Your task to perform on an android device: turn off notifications in google photos Image 0: 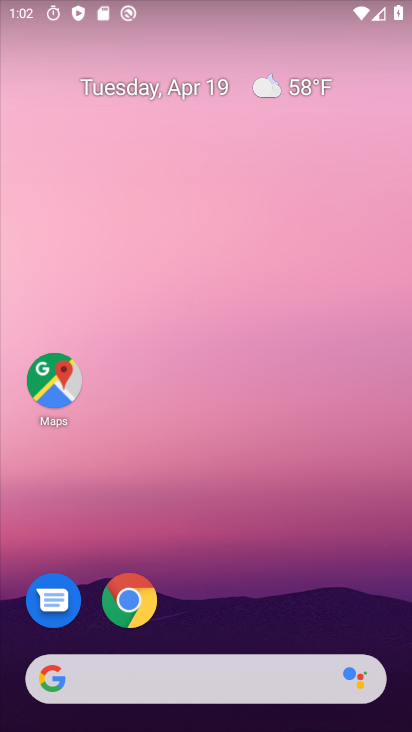
Step 0: drag from (282, 691) to (281, 237)
Your task to perform on an android device: turn off notifications in google photos Image 1: 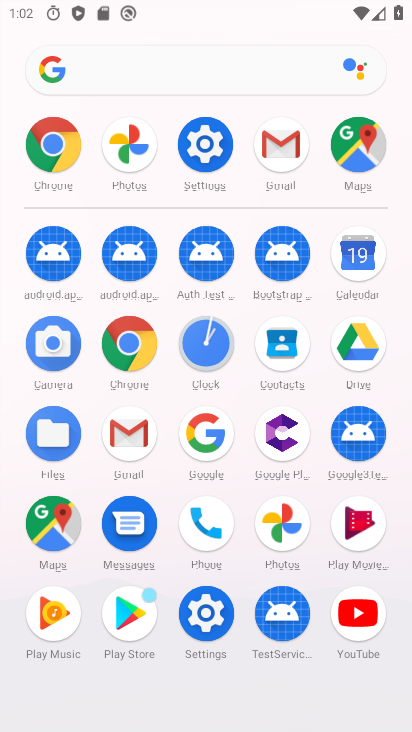
Step 1: click (271, 521)
Your task to perform on an android device: turn off notifications in google photos Image 2: 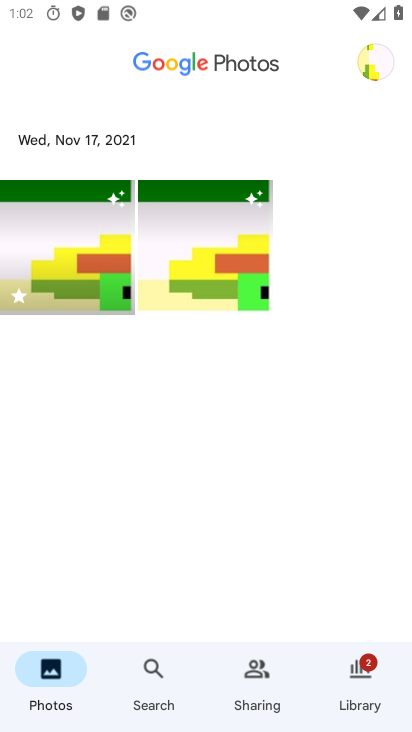
Step 2: click (363, 75)
Your task to perform on an android device: turn off notifications in google photos Image 3: 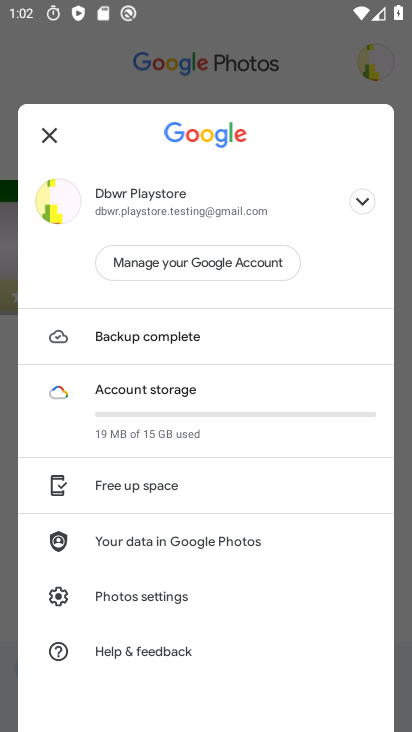
Step 3: click (144, 598)
Your task to perform on an android device: turn off notifications in google photos Image 4: 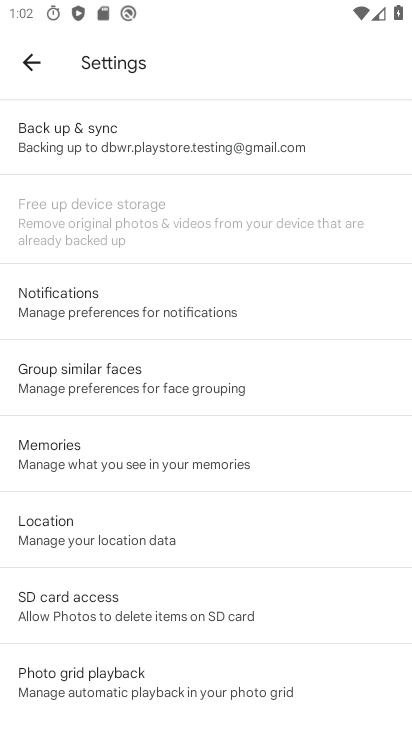
Step 4: click (154, 295)
Your task to perform on an android device: turn off notifications in google photos Image 5: 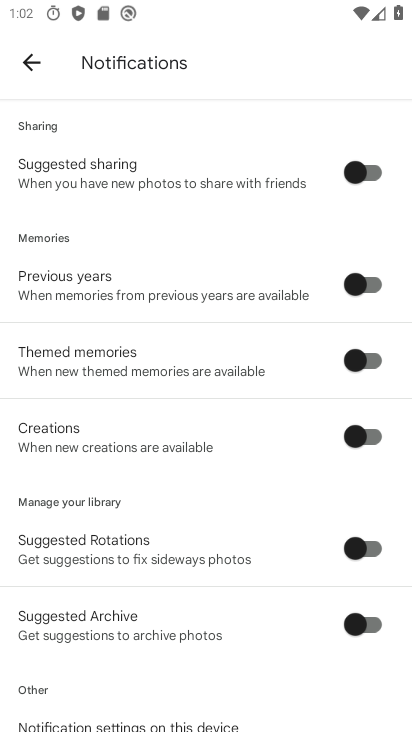
Step 5: drag from (74, 429) to (125, 147)
Your task to perform on an android device: turn off notifications in google photos Image 6: 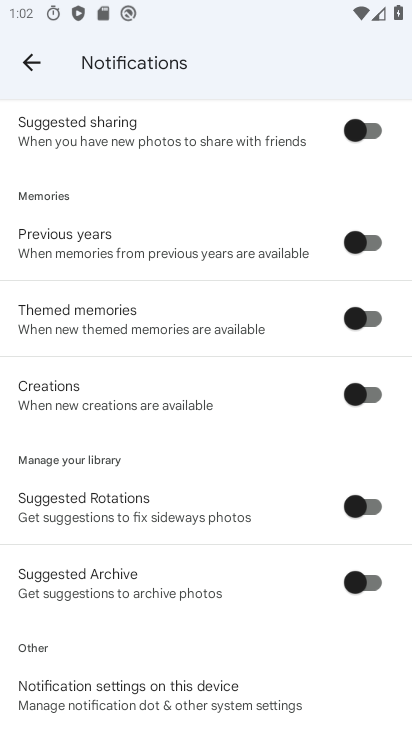
Step 6: click (168, 688)
Your task to perform on an android device: turn off notifications in google photos Image 7: 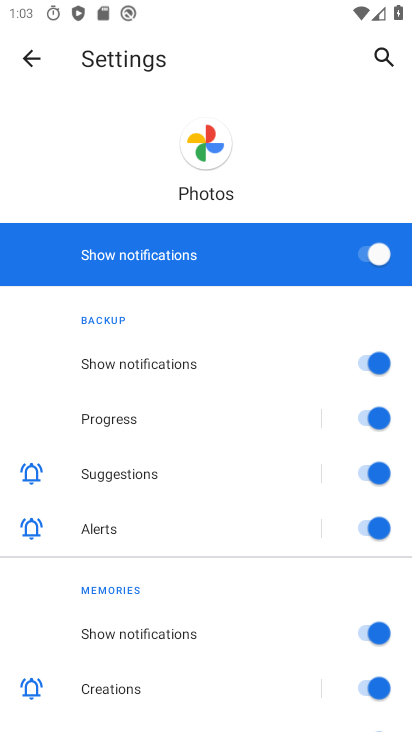
Step 7: click (368, 249)
Your task to perform on an android device: turn off notifications in google photos Image 8: 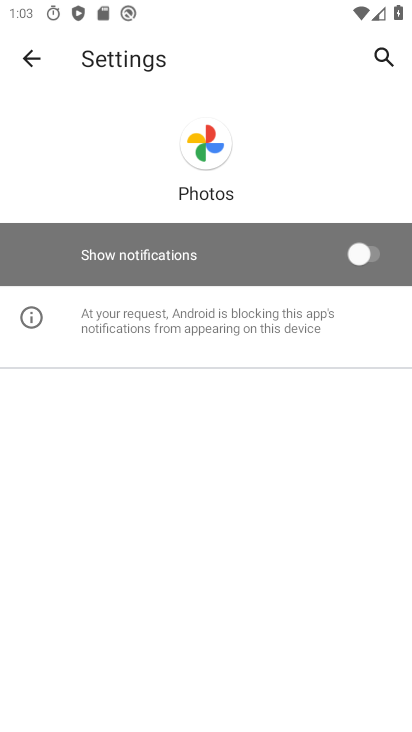
Step 8: task complete